Your task to perform on an android device: Show me popular videos on Youtube Image 0: 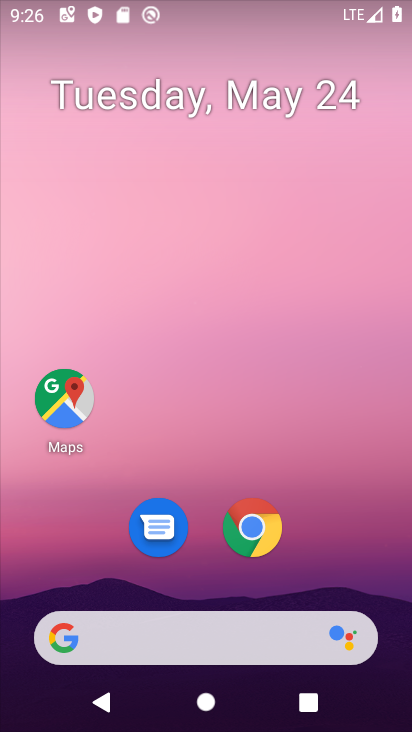
Step 0: drag from (203, 524) to (223, 179)
Your task to perform on an android device: Show me popular videos on Youtube Image 1: 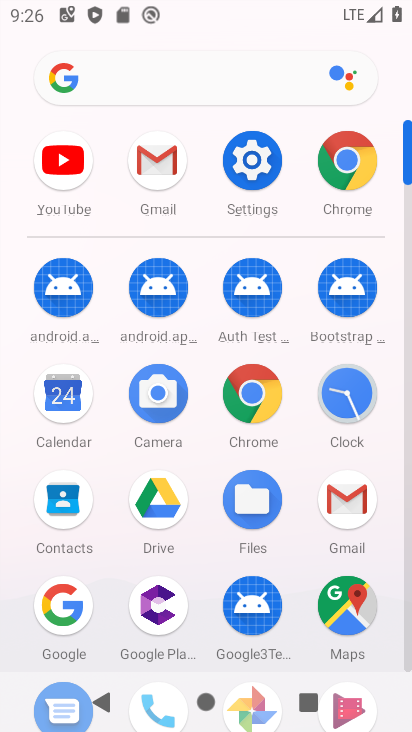
Step 1: drag from (209, 603) to (221, 299)
Your task to perform on an android device: Show me popular videos on Youtube Image 2: 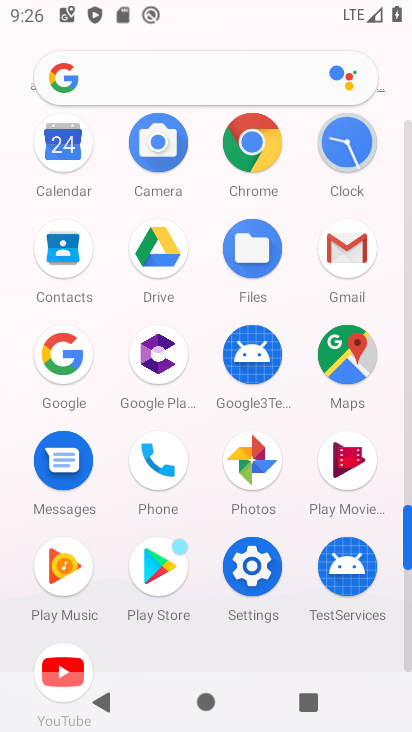
Step 2: click (65, 662)
Your task to perform on an android device: Show me popular videos on Youtube Image 3: 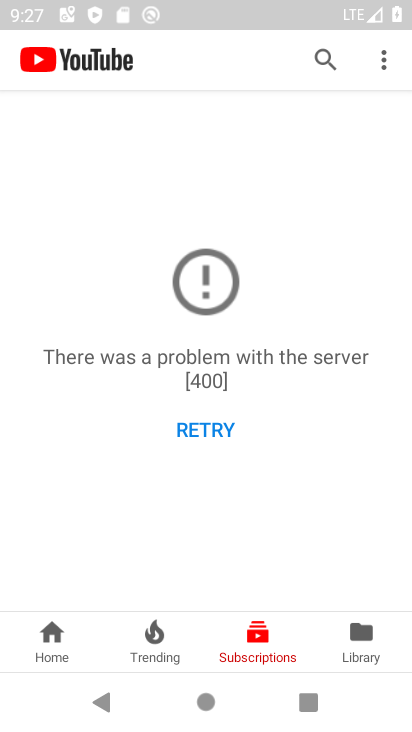
Step 3: click (121, 645)
Your task to perform on an android device: Show me popular videos on Youtube Image 4: 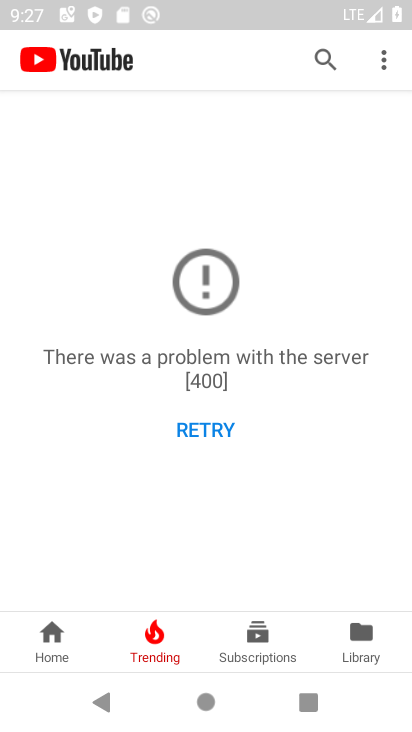
Step 4: task complete